Your task to perform on an android device: Open my contact list Image 0: 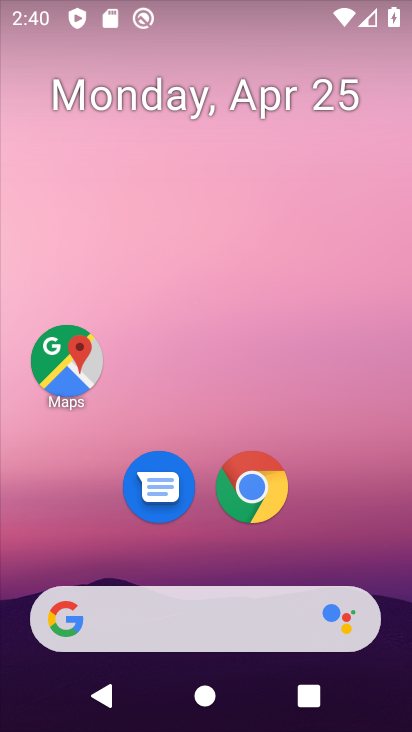
Step 0: drag from (97, 584) to (225, 112)
Your task to perform on an android device: Open my contact list Image 1: 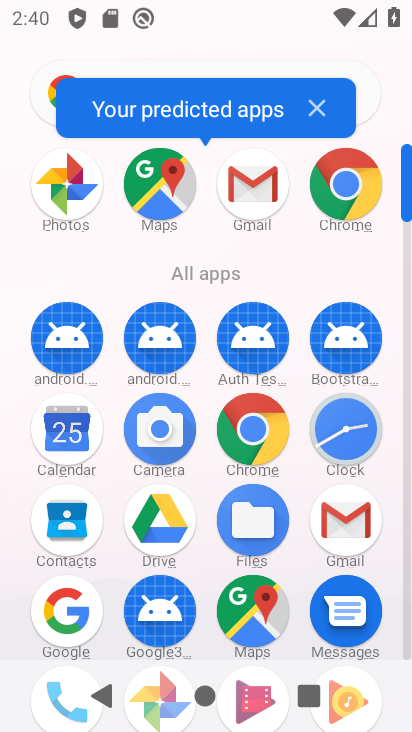
Step 1: click (72, 534)
Your task to perform on an android device: Open my contact list Image 2: 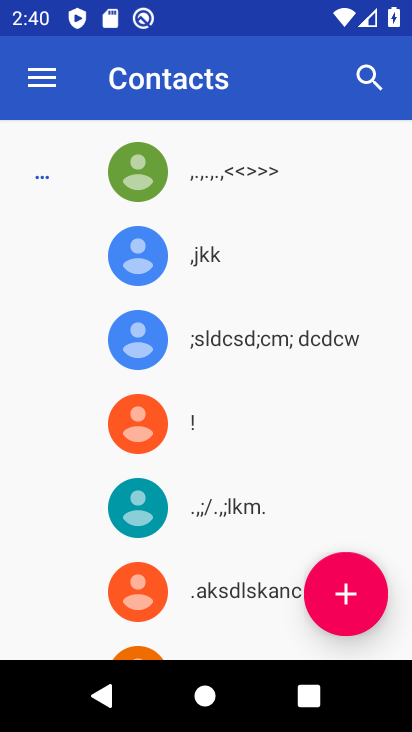
Step 2: task complete